Your task to perform on an android device: refresh tabs in the chrome app Image 0: 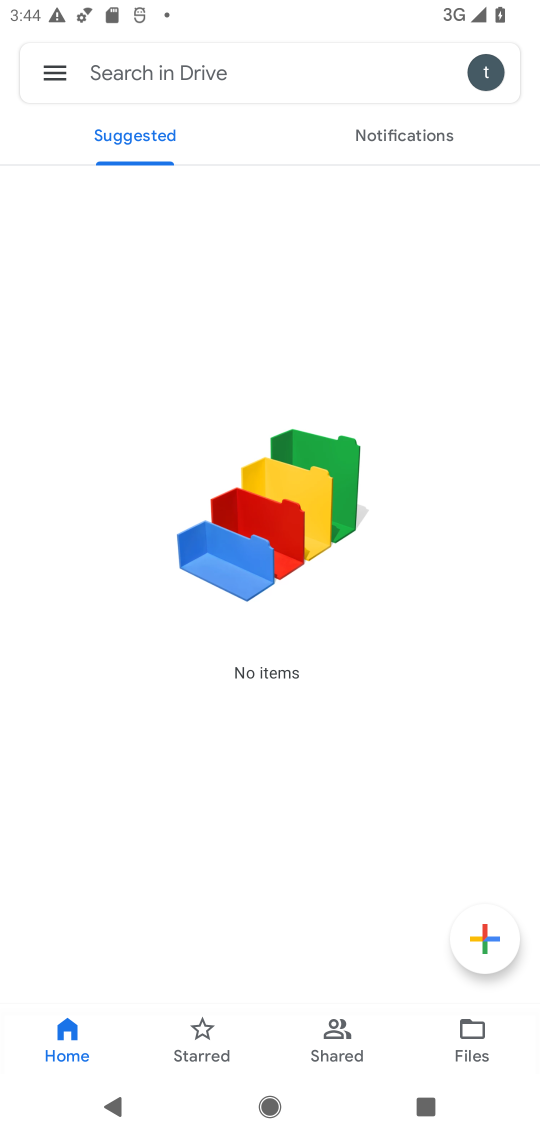
Step 0: press home button
Your task to perform on an android device: refresh tabs in the chrome app Image 1: 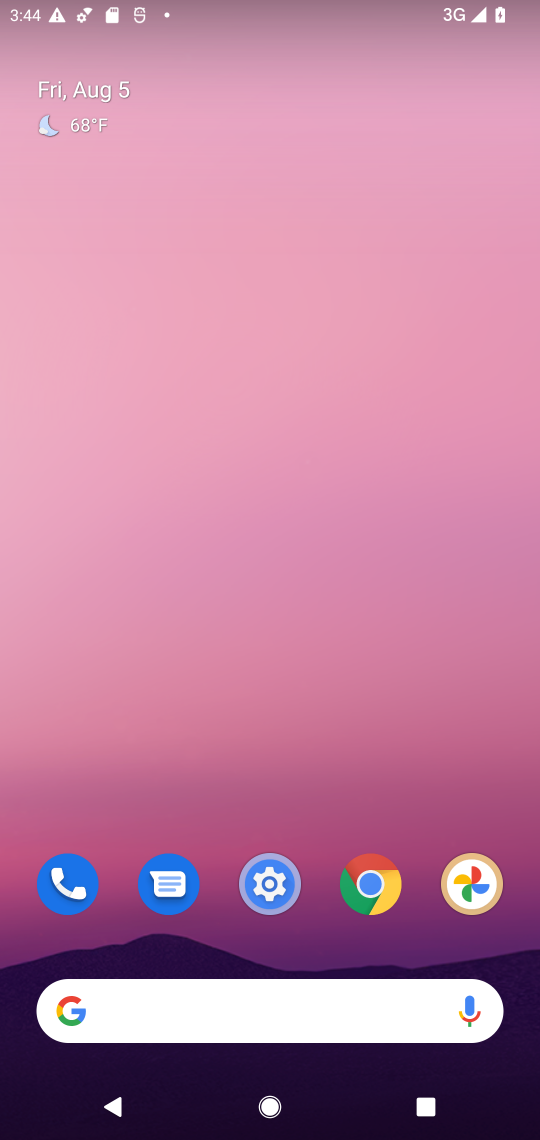
Step 1: drag from (423, 830) to (253, 14)
Your task to perform on an android device: refresh tabs in the chrome app Image 2: 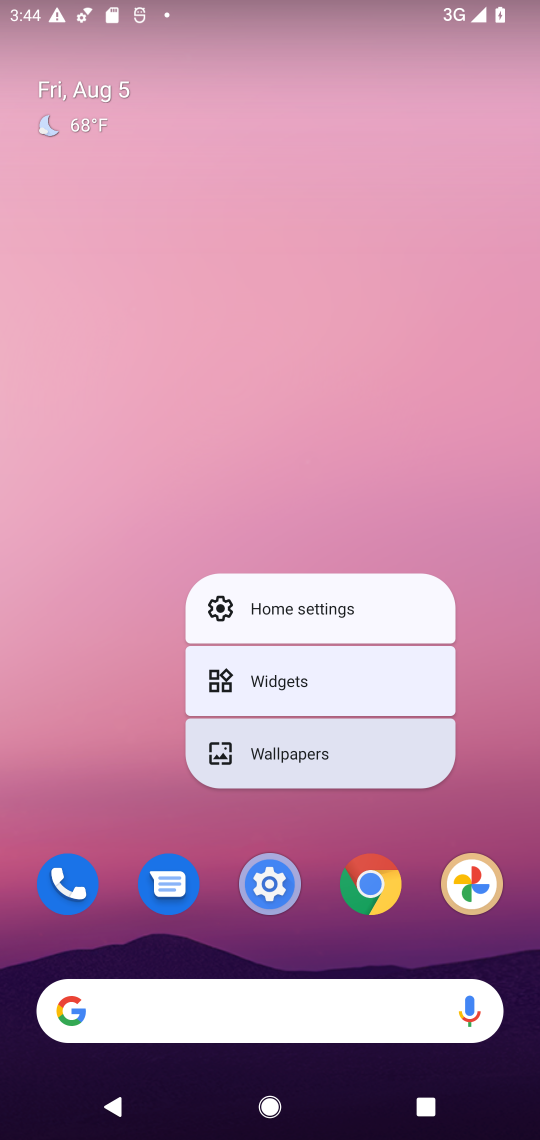
Step 2: click (473, 406)
Your task to perform on an android device: refresh tabs in the chrome app Image 3: 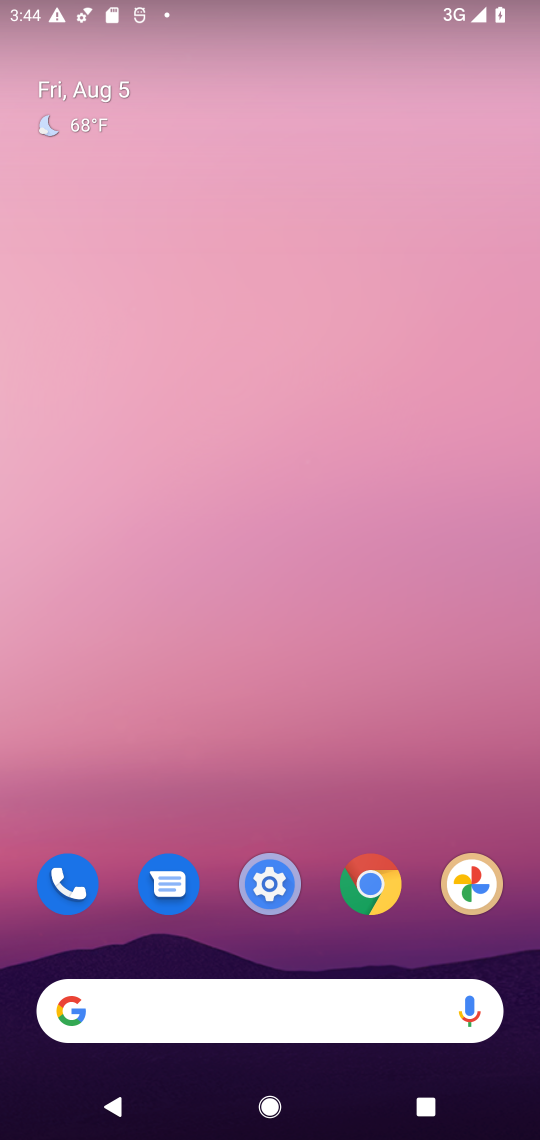
Step 3: drag from (428, 957) to (162, 2)
Your task to perform on an android device: refresh tabs in the chrome app Image 4: 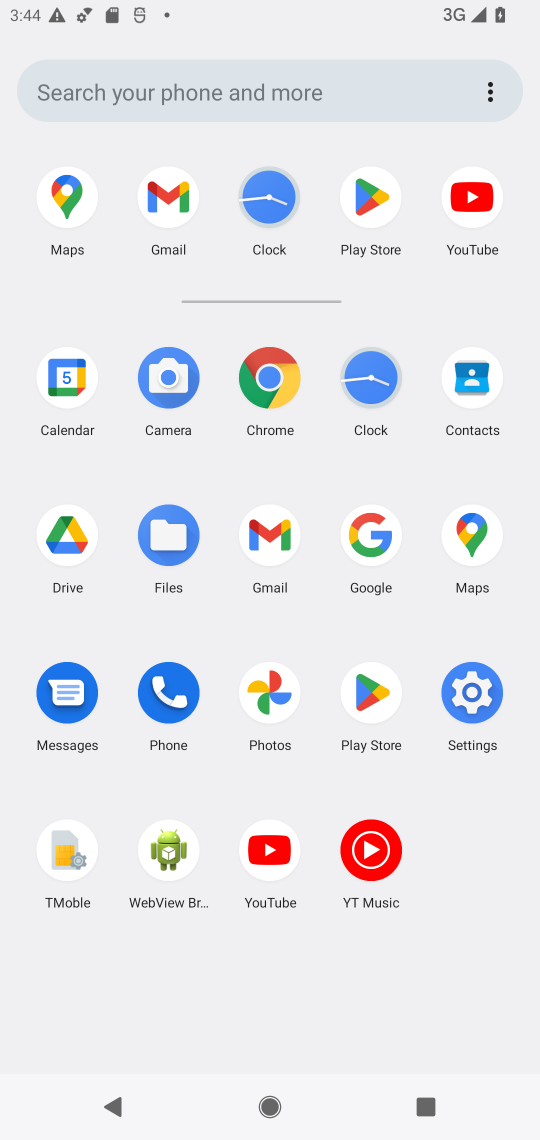
Step 4: click (254, 364)
Your task to perform on an android device: refresh tabs in the chrome app Image 5: 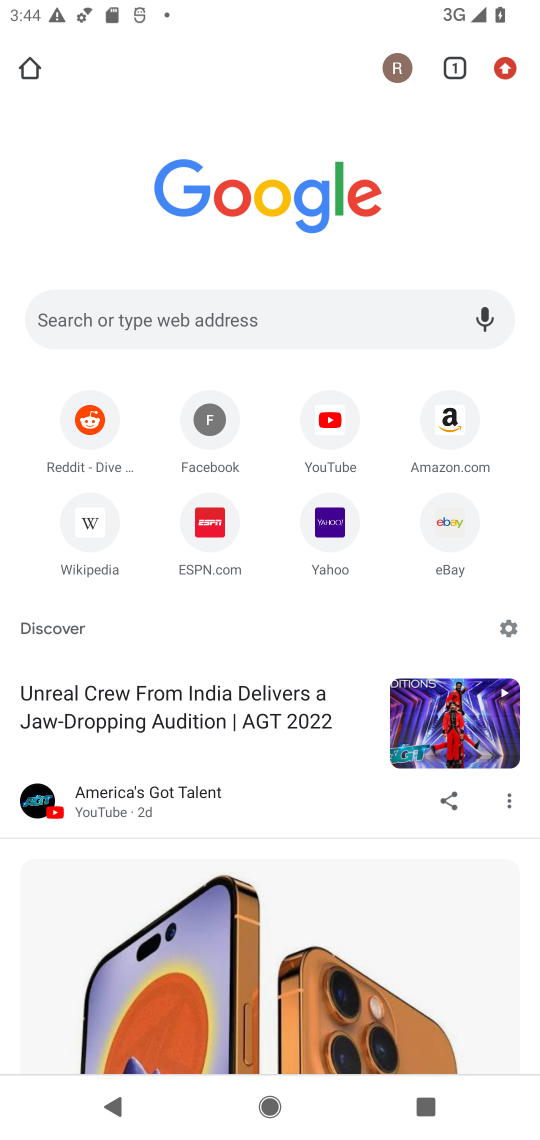
Step 5: click (500, 60)
Your task to perform on an android device: refresh tabs in the chrome app Image 6: 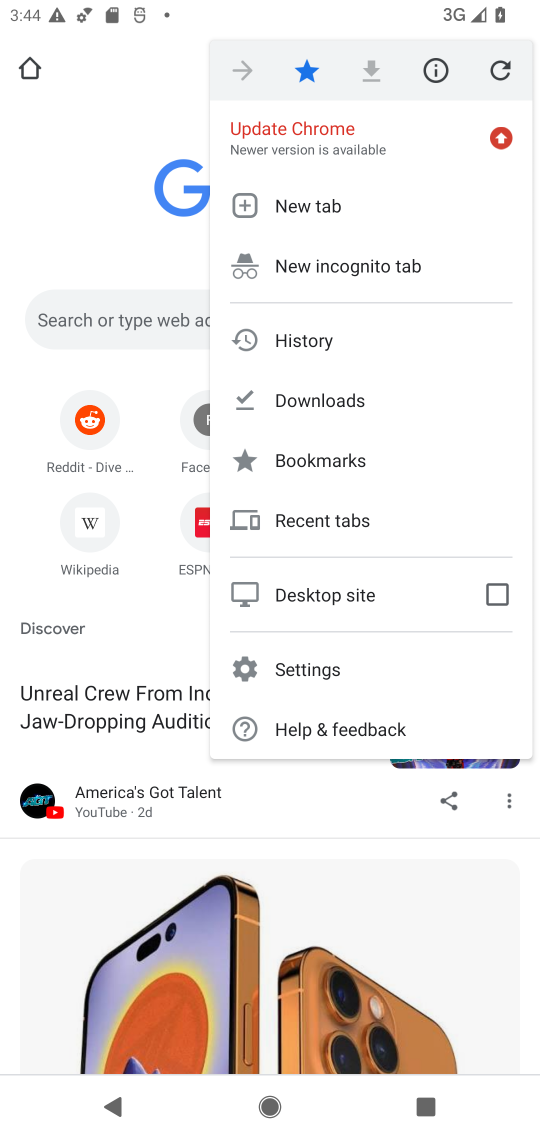
Step 6: click (500, 60)
Your task to perform on an android device: refresh tabs in the chrome app Image 7: 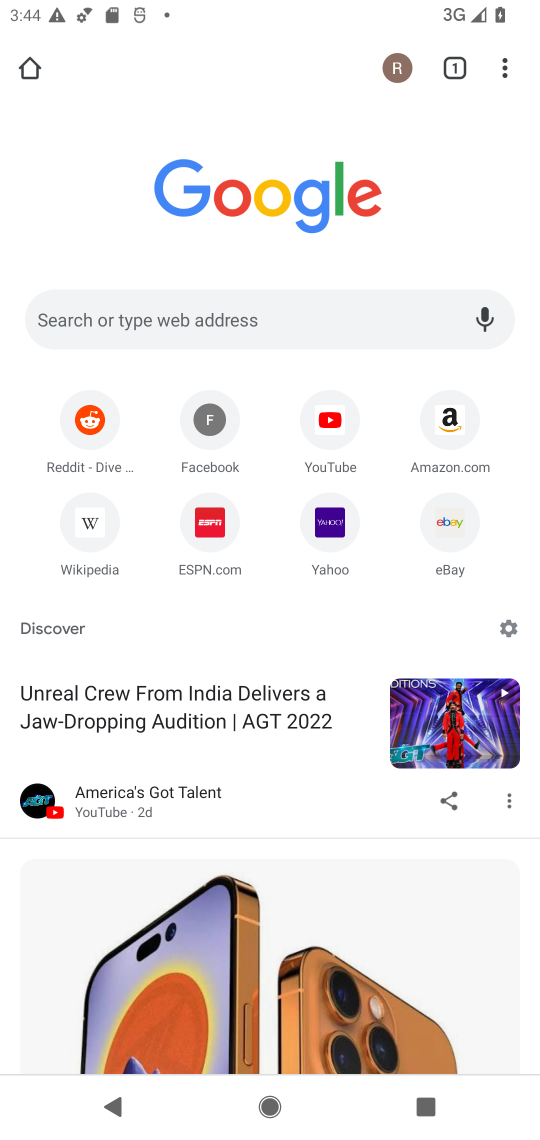
Step 7: task complete